Your task to perform on an android device: open app "The Home Depot" (install if not already installed) Image 0: 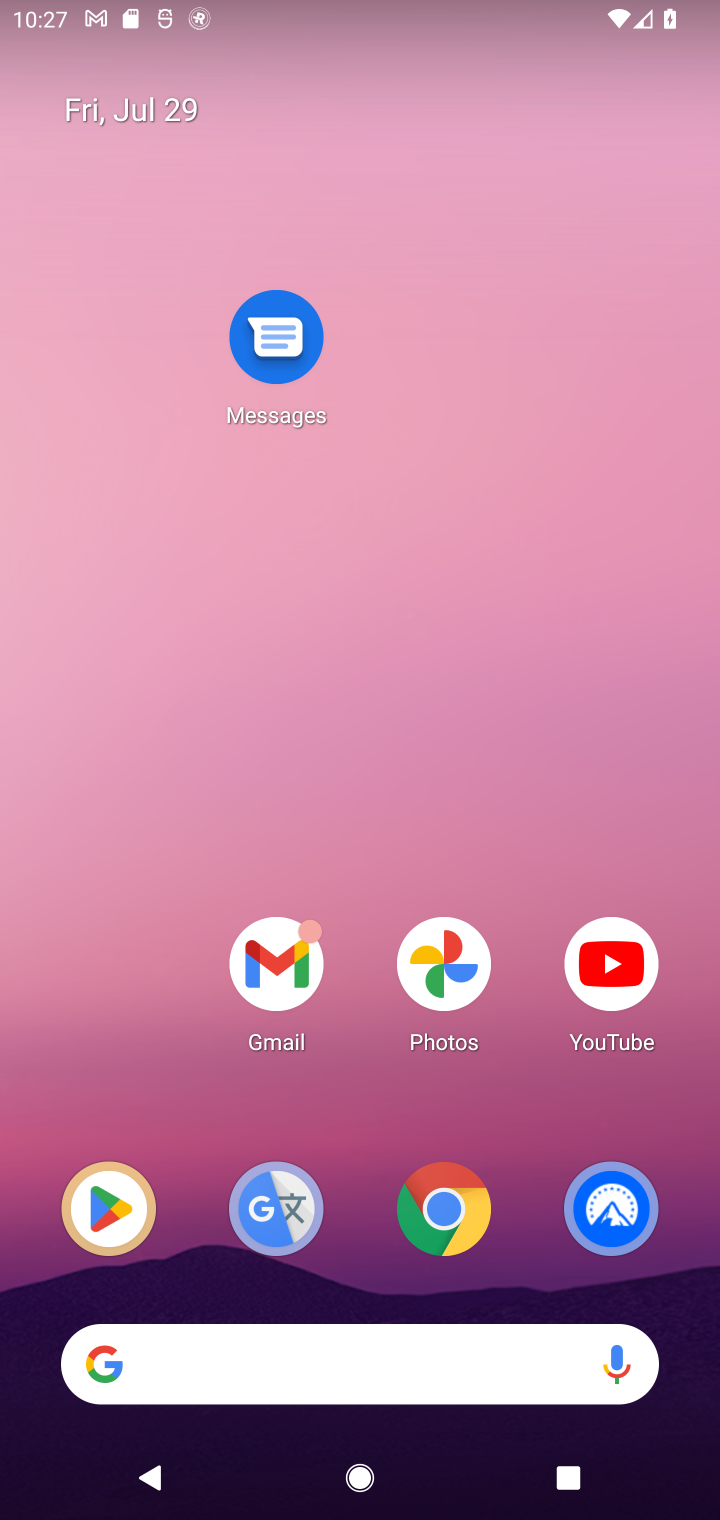
Step 0: drag from (366, 1316) to (481, 277)
Your task to perform on an android device: open app "The Home Depot" (install if not already installed) Image 1: 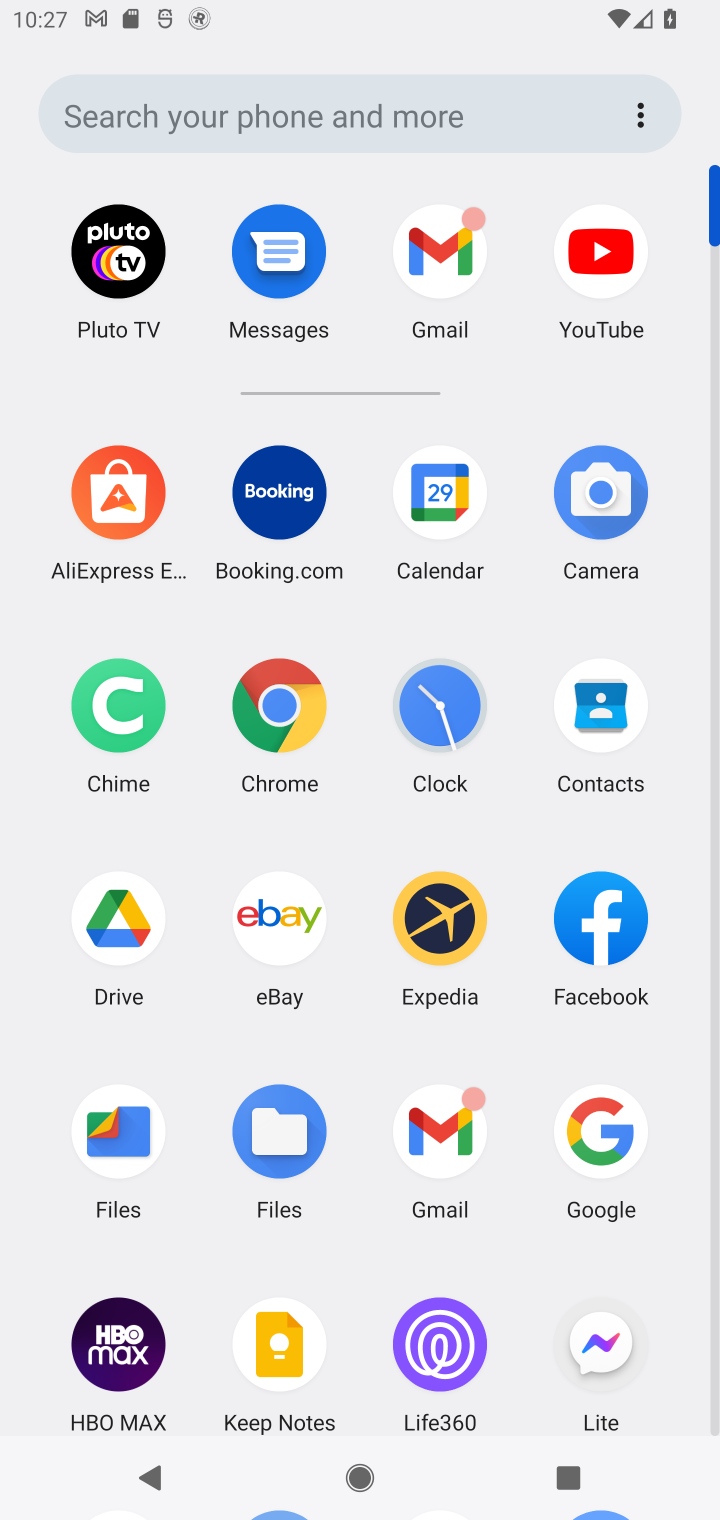
Step 1: drag from (355, 1309) to (356, 419)
Your task to perform on an android device: open app "The Home Depot" (install if not already installed) Image 2: 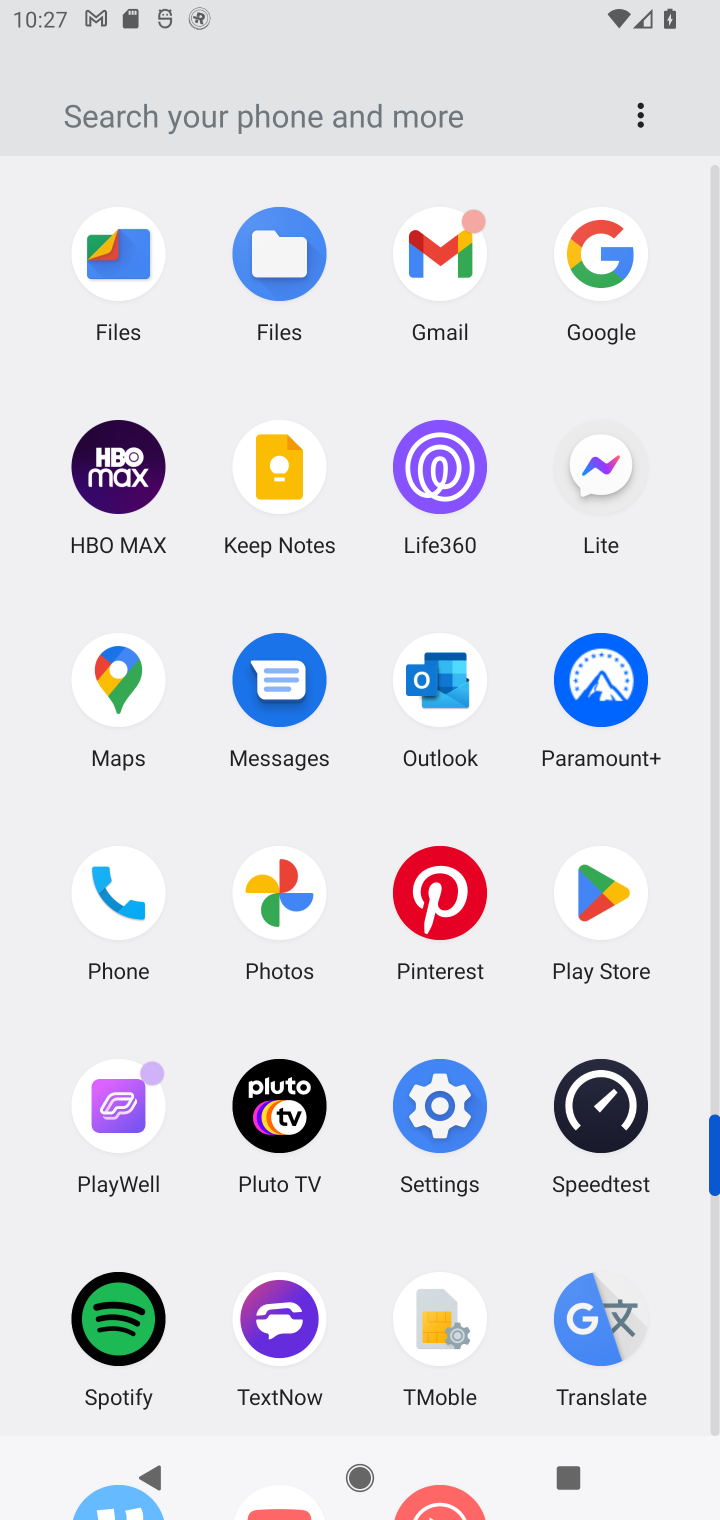
Step 2: click (600, 896)
Your task to perform on an android device: open app "The Home Depot" (install if not already installed) Image 3: 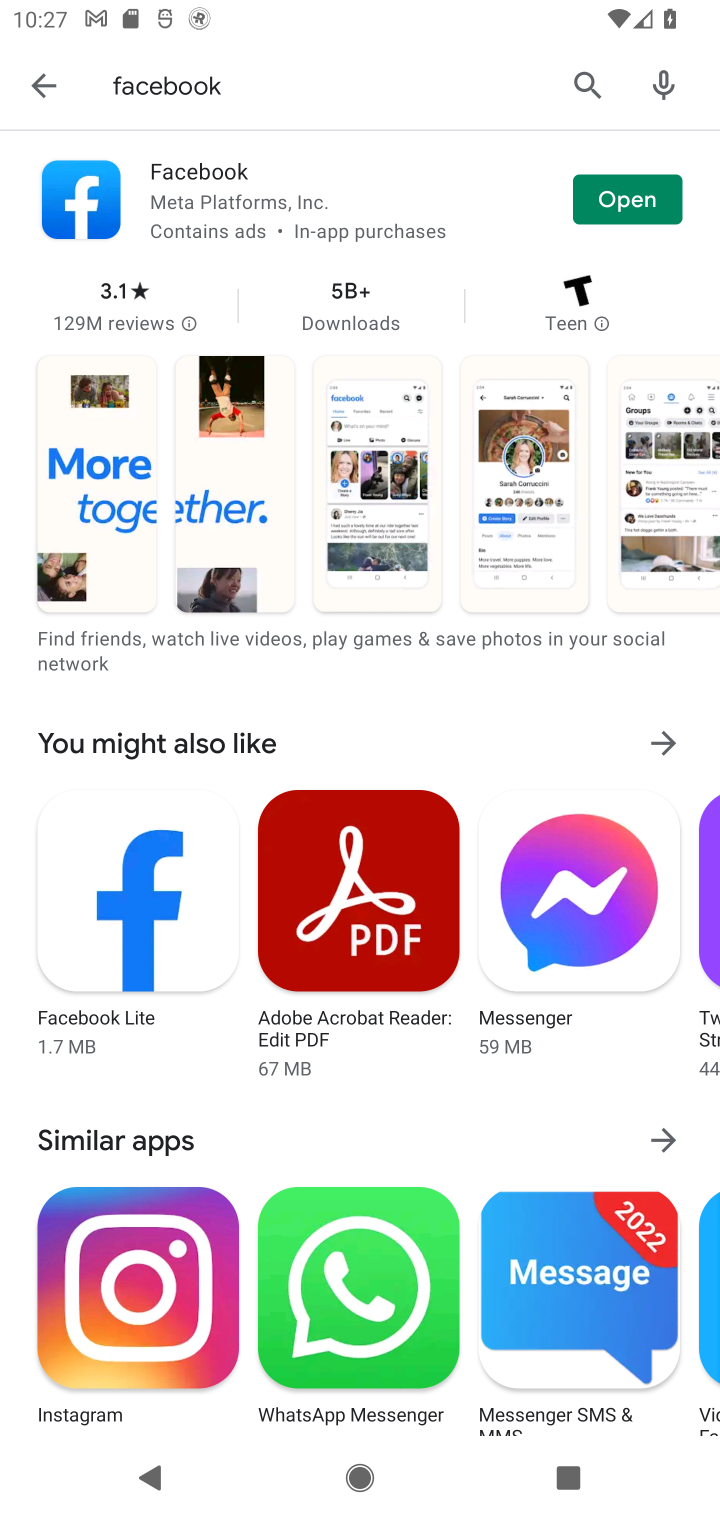
Step 3: click (451, 92)
Your task to perform on an android device: open app "The Home Depot" (install if not already installed) Image 4: 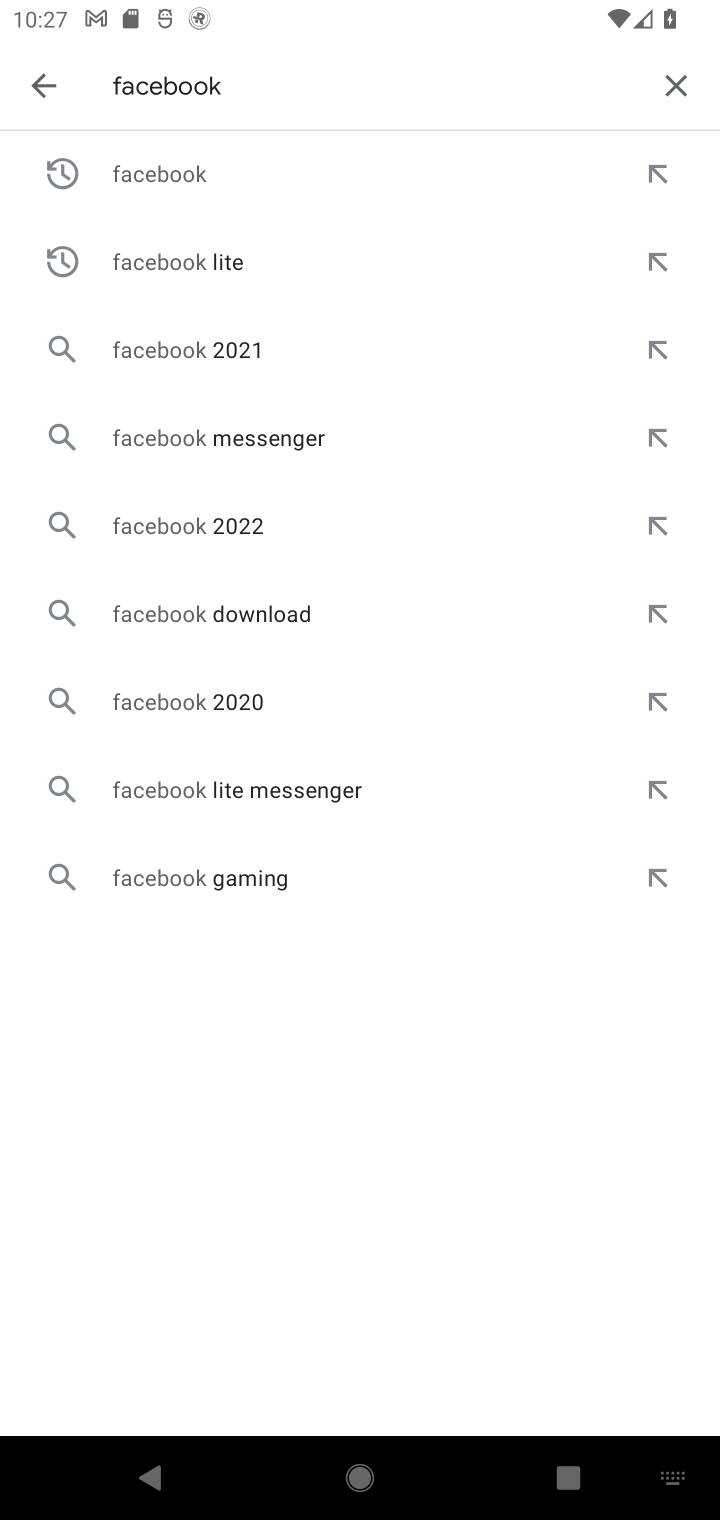
Step 4: click (682, 82)
Your task to perform on an android device: open app "The Home Depot" (install if not already installed) Image 5: 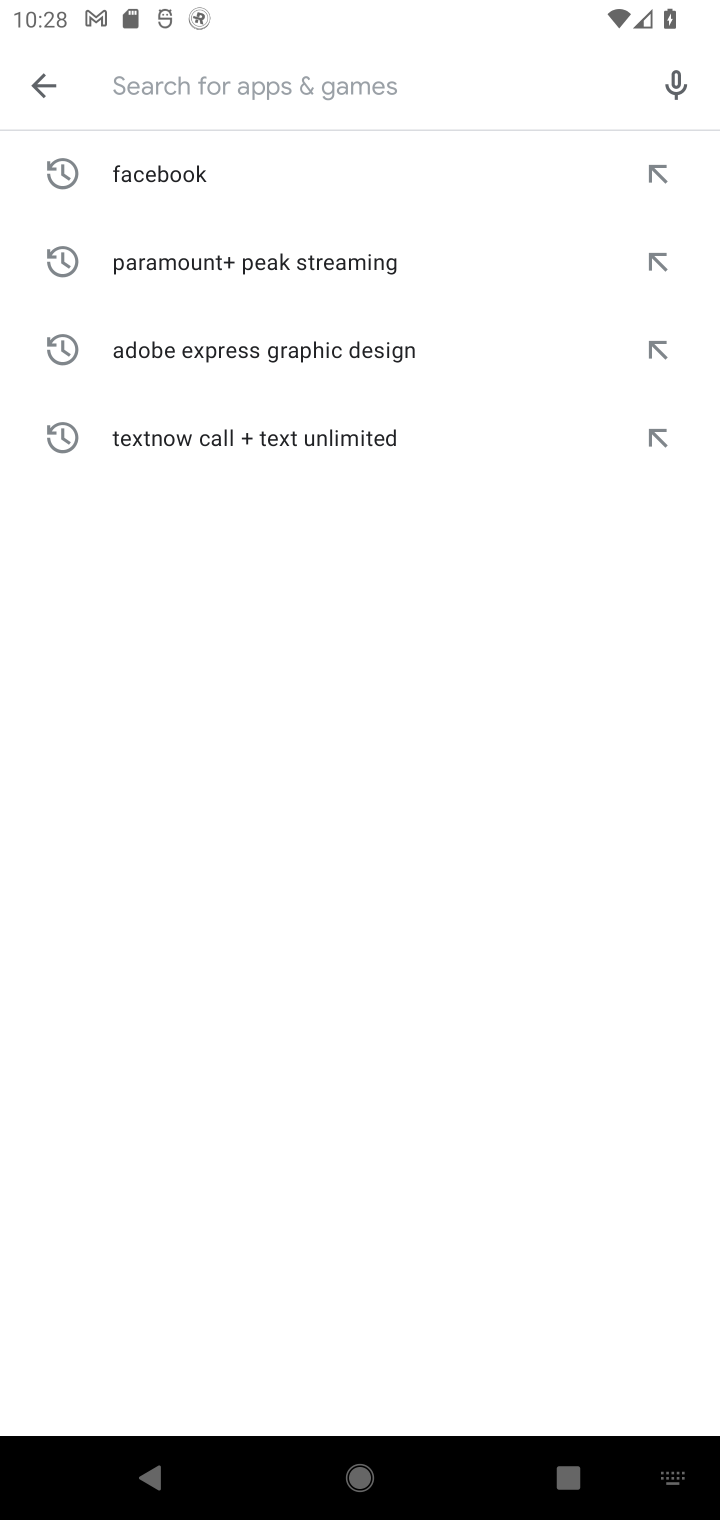
Step 5: click (343, 85)
Your task to perform on an android device: open app "The Home Depot" (install if not already installed) Image 6: 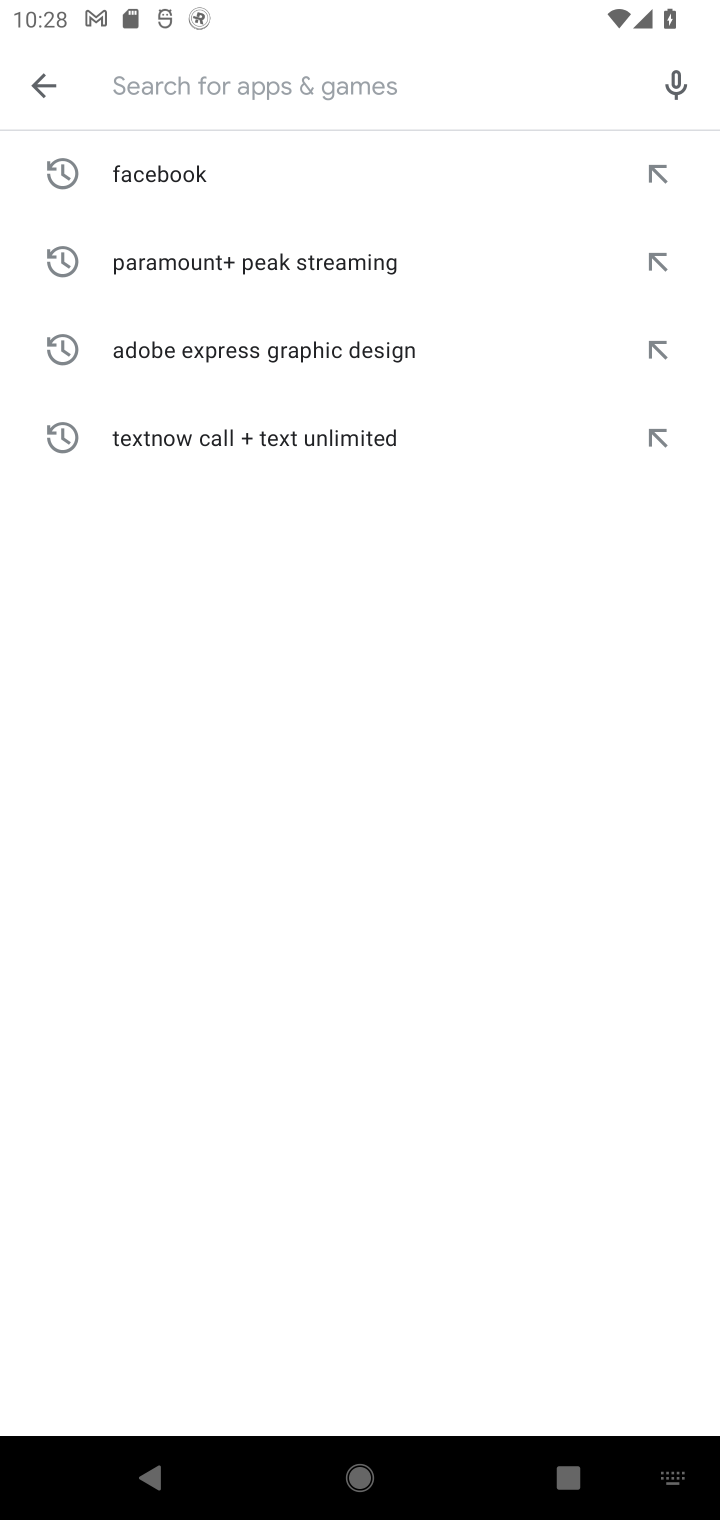
Step 6: type "The Home Depot"
Your task to perform on an android device: open app "The Home Depot" (install if not already installed) Image 7: 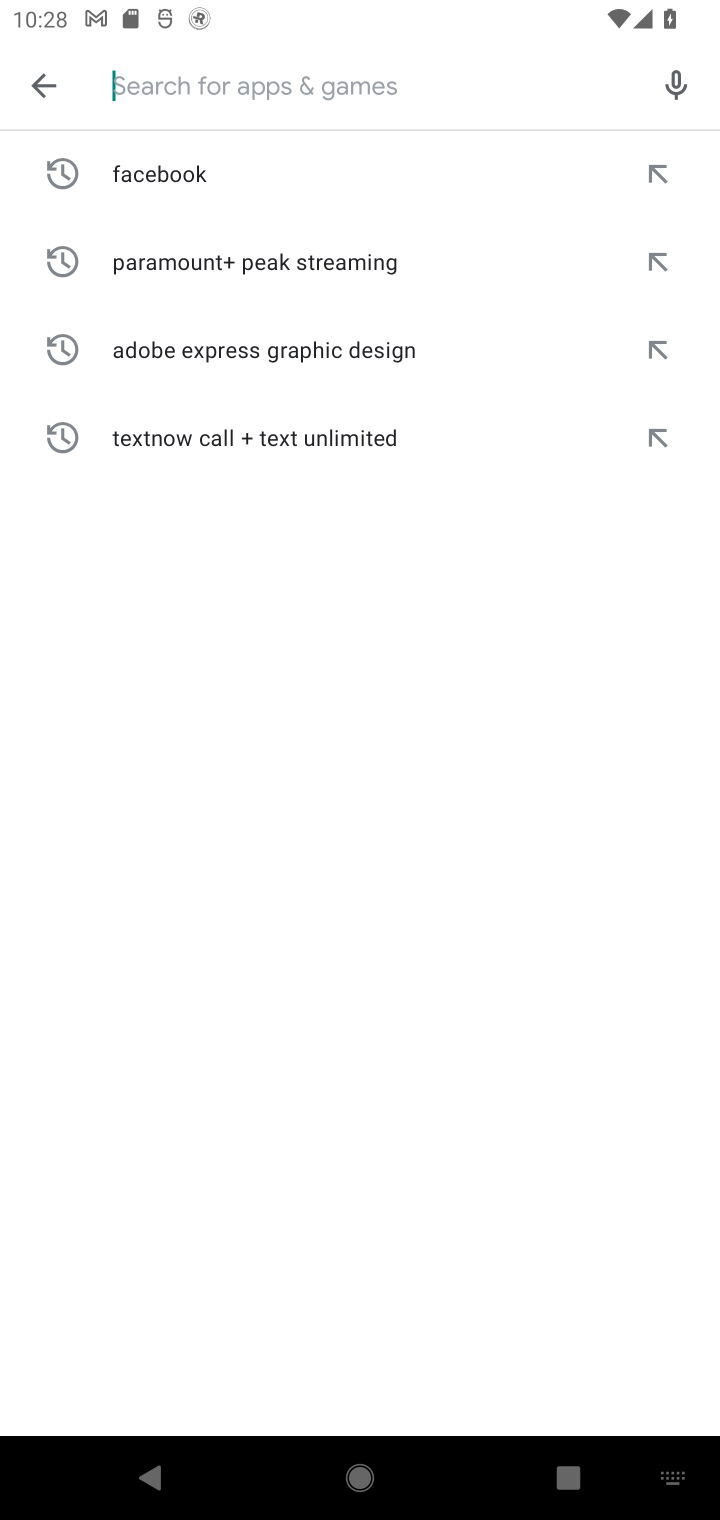
Step 7: click (179, 165)
Your task to perform on an android device: open app "The Home Depot" (install if not already installed) Image 8: 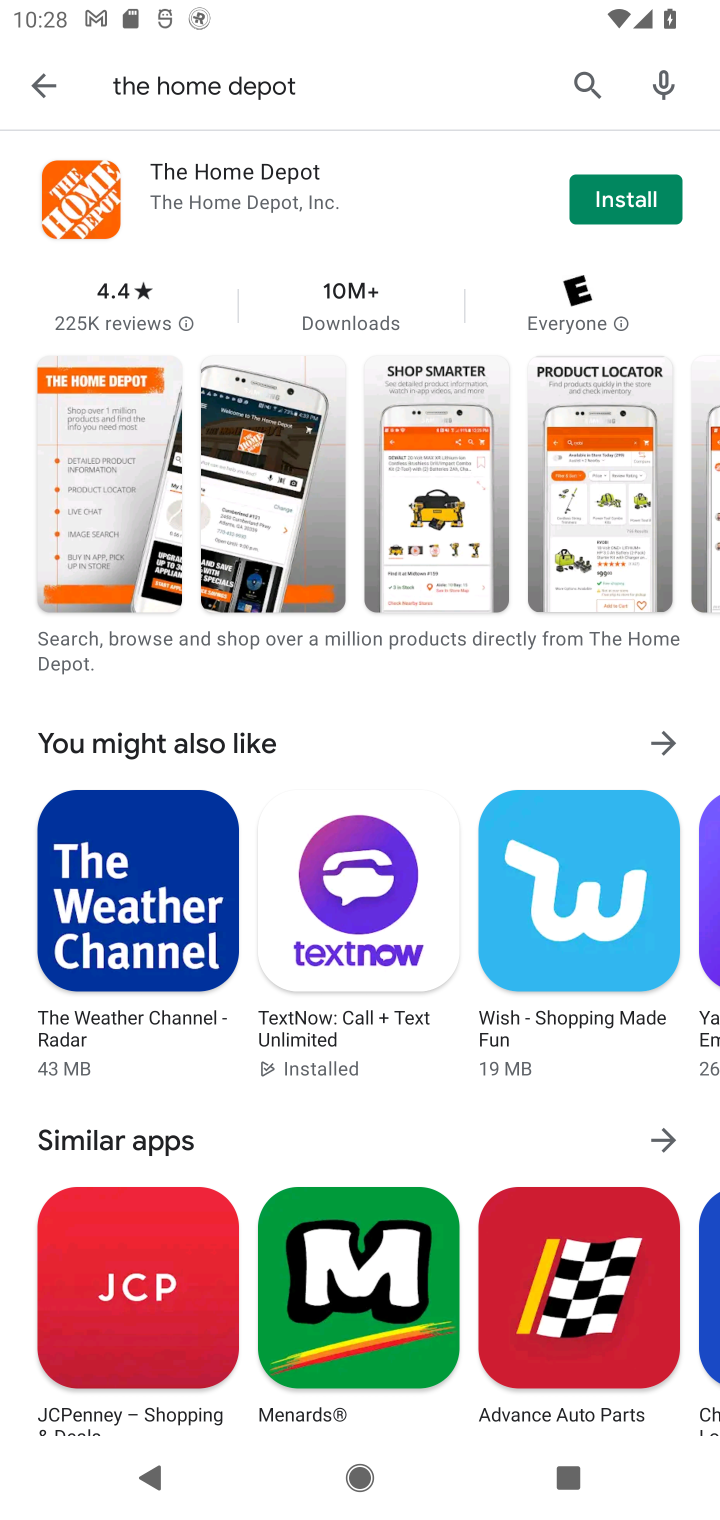
Step 8: click (618, 206)
Your task to perform on an android device: open app "The Home Depot" (install if not already installed) Image 9: 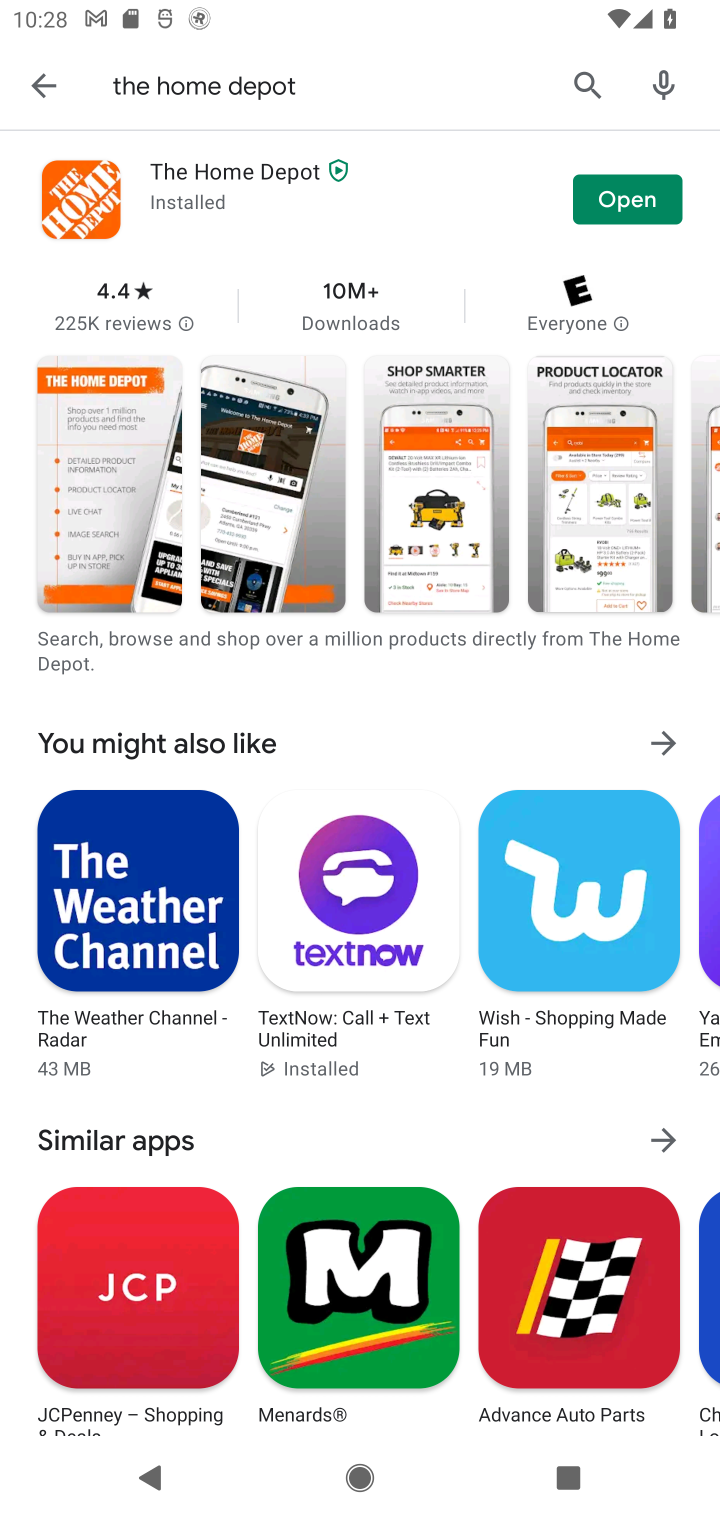
Step 9: click (631, 208)
Your task to perform on an android device: open app "The Home Depot" (install if not already installed) Image 10: 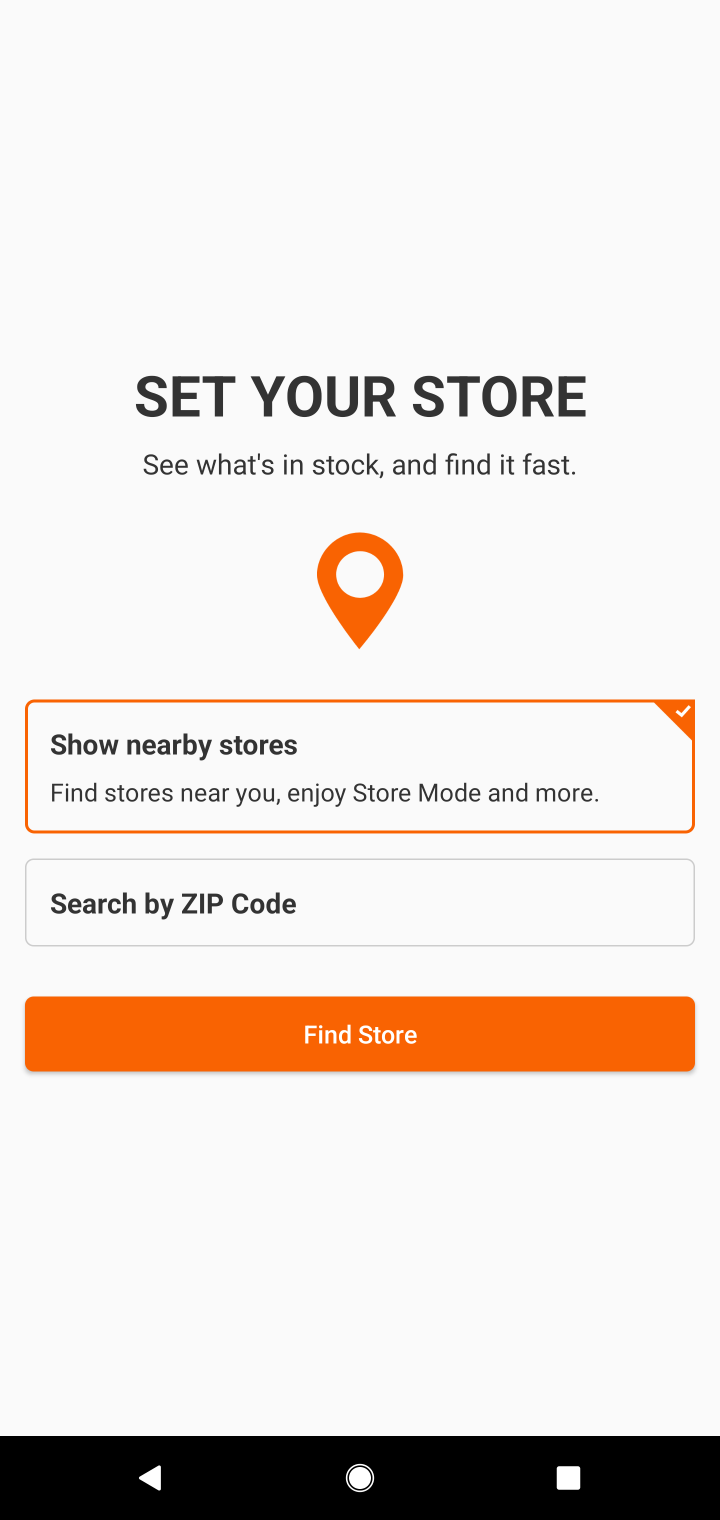
Step 10: task complete